Your task to perform on an android device: delete a single message in the gmail app Image 0: 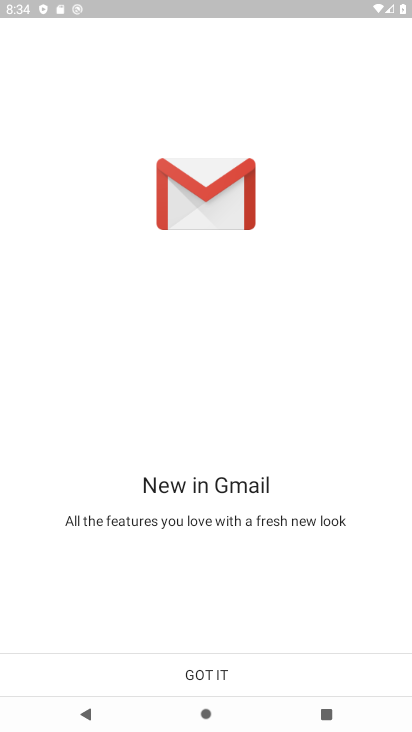
Step 0: click (332, 674)
Your task to perform on an android device: delete a single message in the gmail app Image 1: 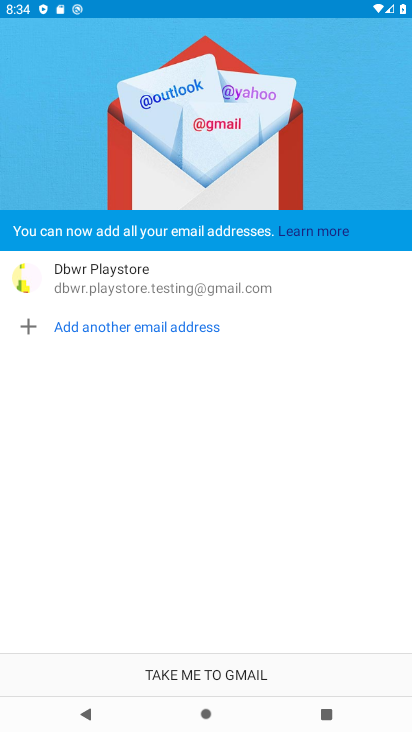
Step 1: click (332, 676)
Your task to perform on an android device: delete a single message in the gmail app Image 2: 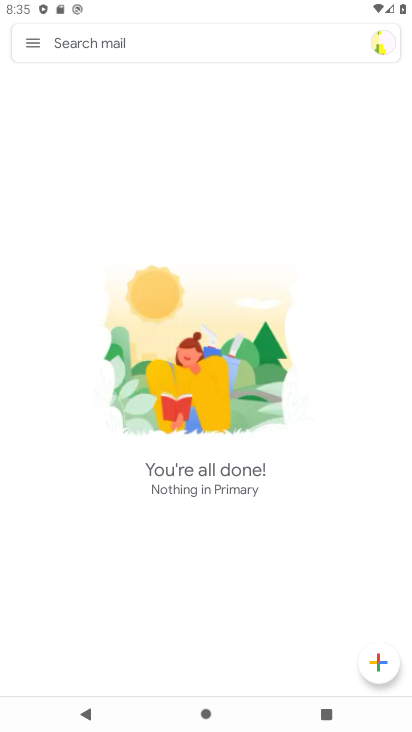
Step 2: click (32, 33)
Your task to perform on an android device: delete a single message in the gmail app Image 3: 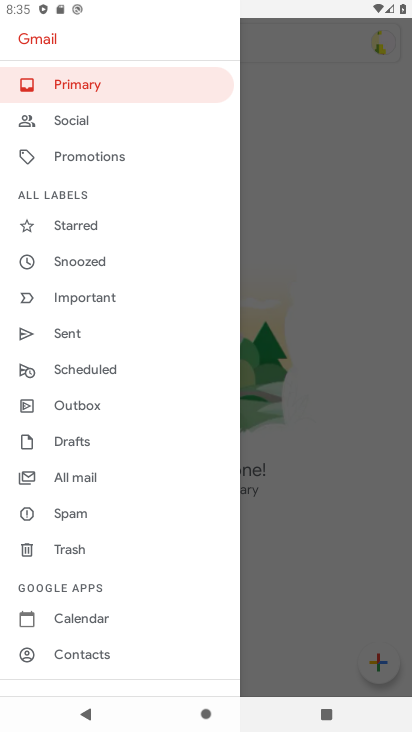
Step 3: click (85, 467)
Your task to perform on an android device: delete a single message in the gmail app Image 4: 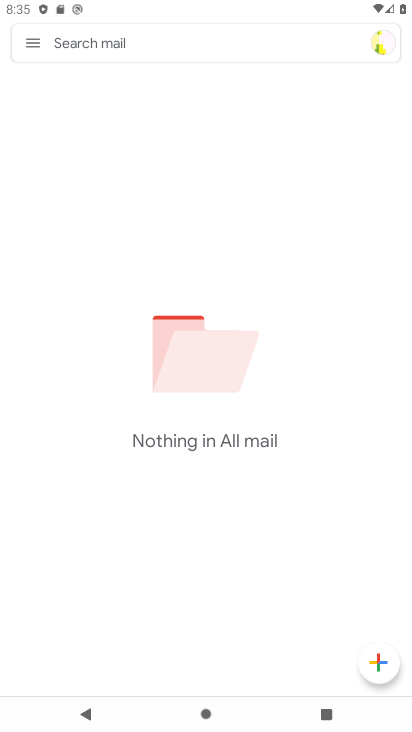
Step 4: task complete